Your task to perform on an android device: change text size in settings app Image 0: 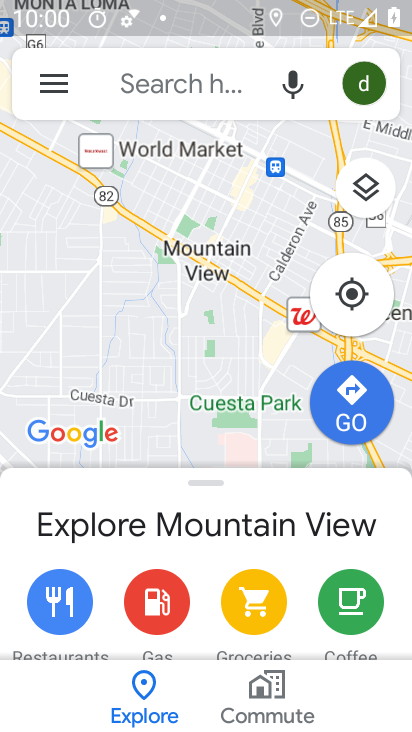
Step 0: press home button
Your task to perform on an android device: change text size in settings app Image 1: 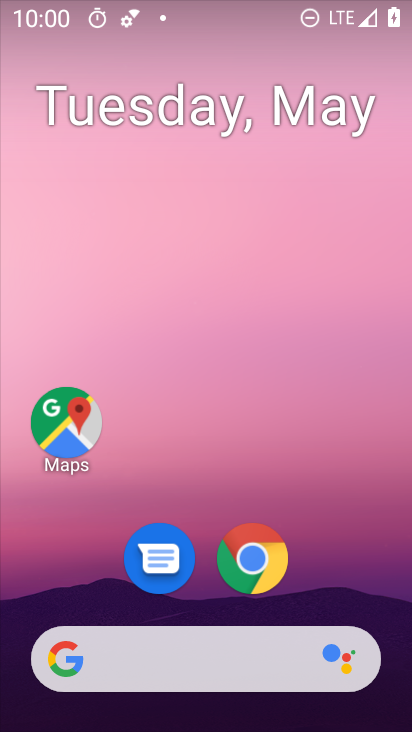
Step 1: drag from (393, 653) to (346, 134)
Your task to perform on an android device: change text size in settings app Image 2: 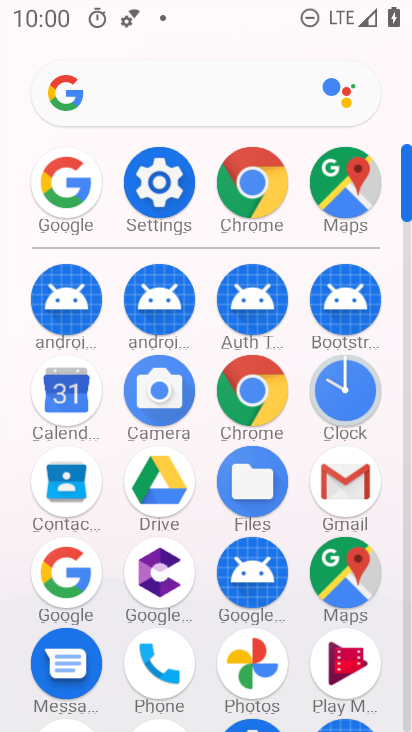
Step 2: click (136, 208)
Your task to perform on an android device: change text size in settings app Image 3: 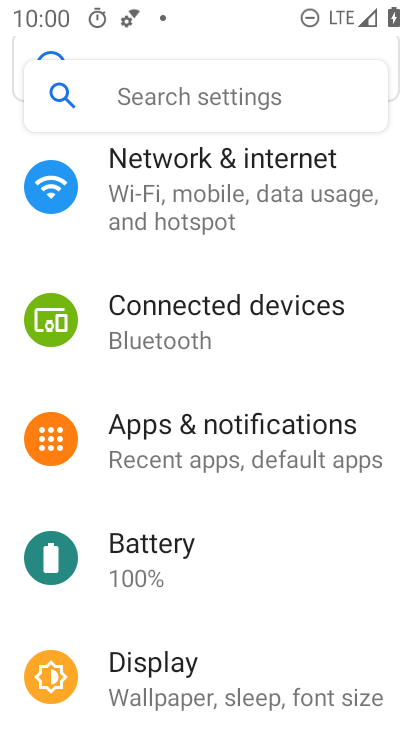
Step 3: click (155, 678)
Your task to perform on an android device: change text size in settings app Image 4: 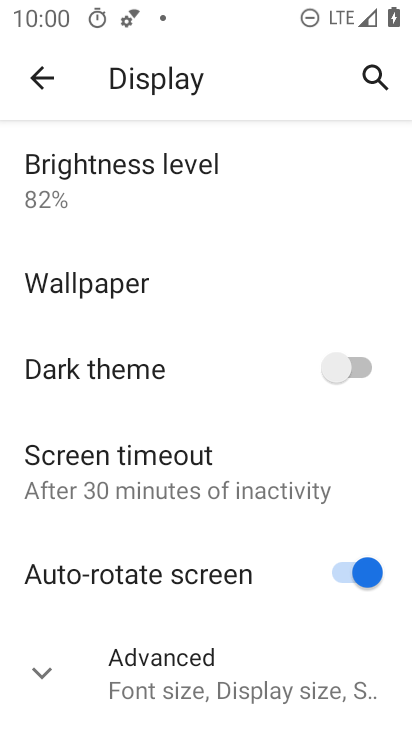
Step 4: click (169, 655)
Your task to perform on an android device: change text size in settings app Image 5: 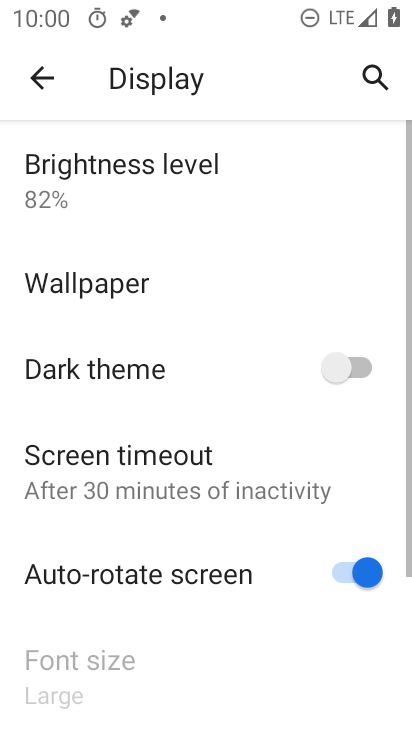
Step 5: drag from (150, 686) to (205, 528)
Your task to perform on an android device: change text size in settings app Image 6: 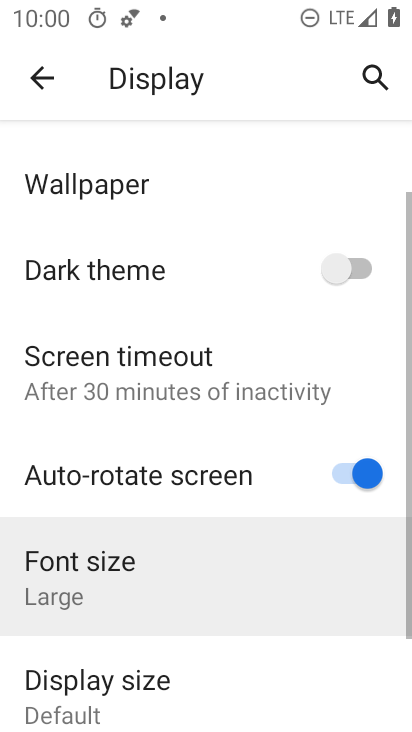
Step 6: drag from (231, 311) to (232, 269)
Your task to perform on an android device: change text size in settings app Image 7: 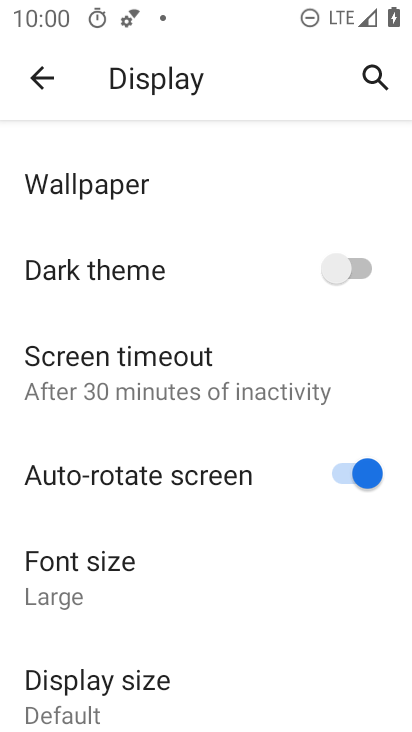
Step 7: click (90, 569)
Your task to perform on an android device: change text size in settings app Image 8: 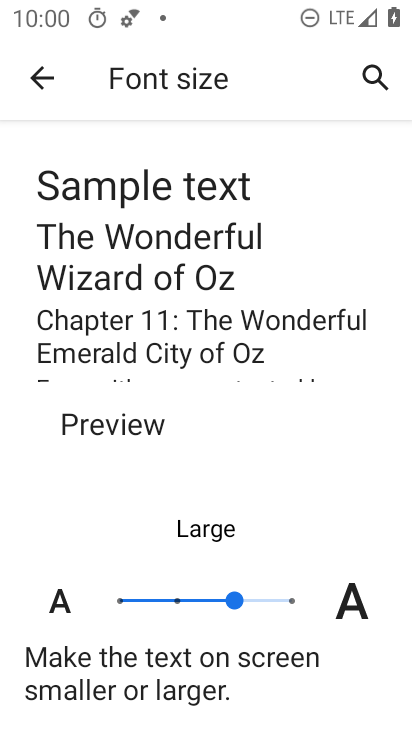
Step 8: click (176, 602)
Your task to perform on an android device: change text size in settings app Image 9: 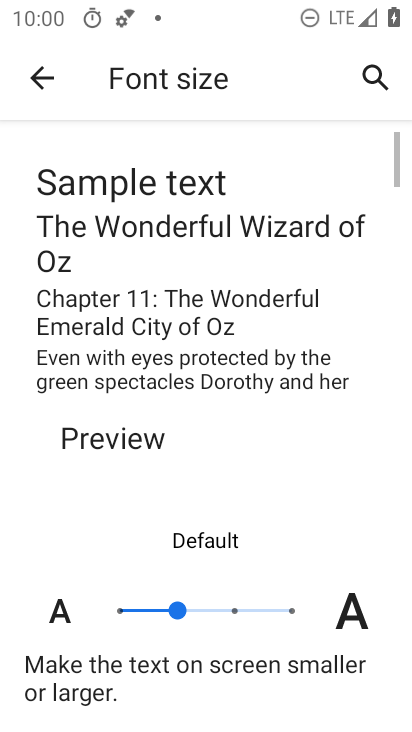
Step 9: task complete